Your task to perform on an android device: turn on sleep mode Image 0: 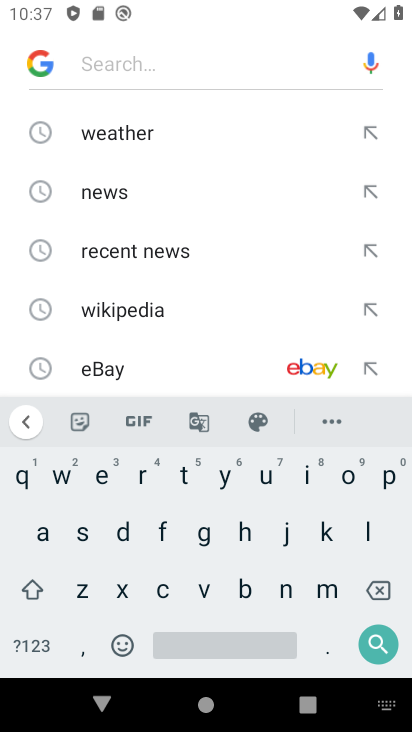
Step 0: press home button
Your task to perform on an android device: turn on sleep mode Image 1: 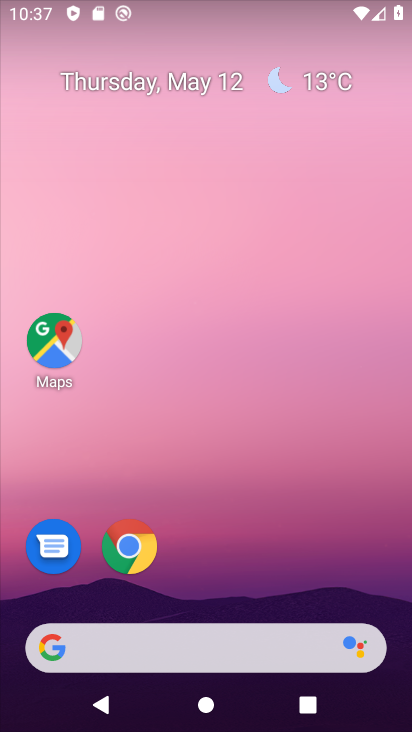
Step 1: drag from (265, 671) to (410, 240)
Your task to perform on an android device: turn on sleep mode Image 2: 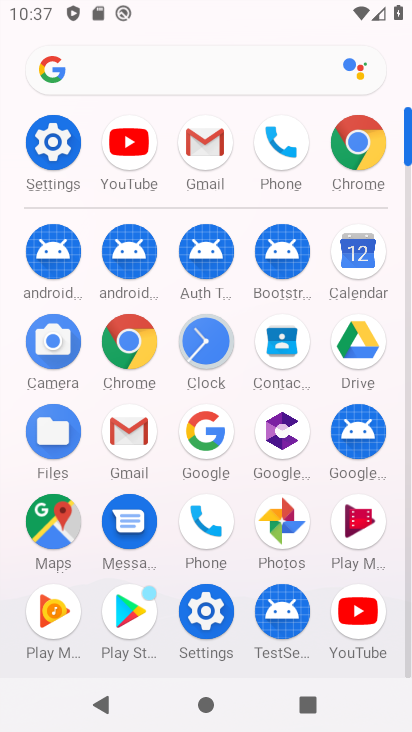
Step 2: click (39, 136)
Your task to perform on an android device: turn on sleep mode Image 3: 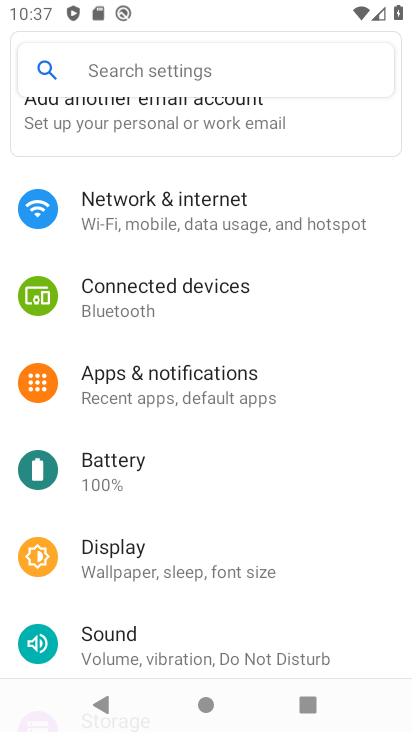
Step 3: click (99, 57)
Your task to perform on an android device: turn on sleep mode Image 4: 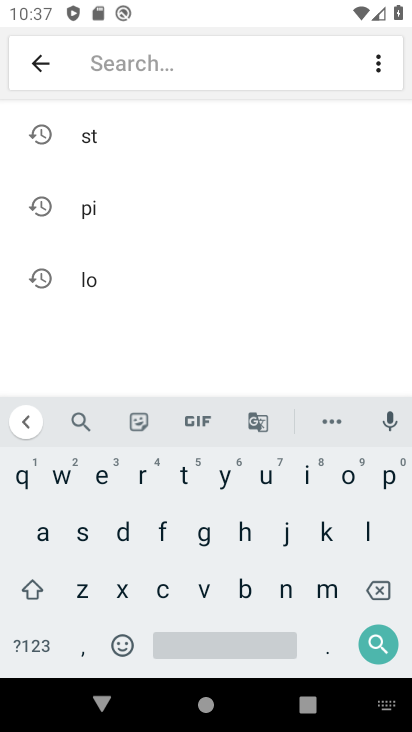
Step 4: click (83, 532)
Your task to perform on an android device: turn on sleep mode Image 5: 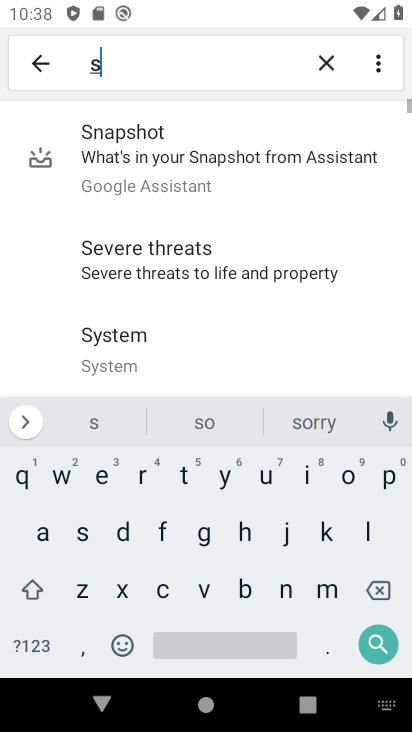
Step 5: click (367, 526)
Your task to perform on an android device: turn on sleep mode Image 6: 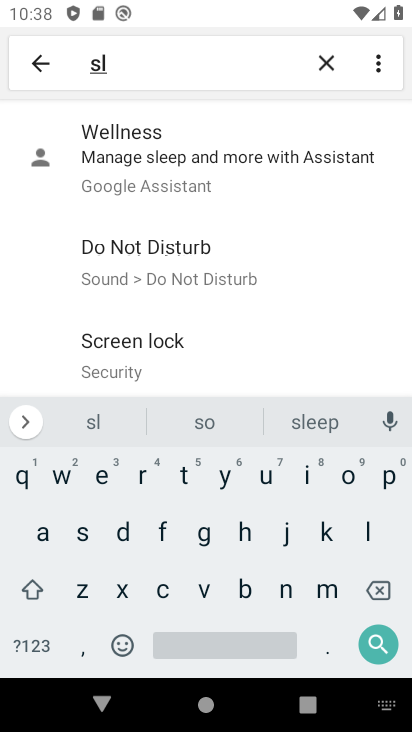
Step 6: click (180, 158)
Your task to perform on an android device: turn on sleep mode Image 7: 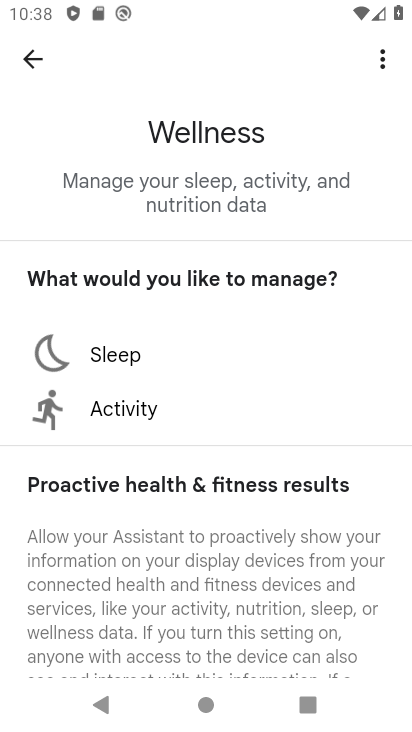
Step 7: click (100, 347)
Your task to perform on an android device: turn on sleep mode Image 8: 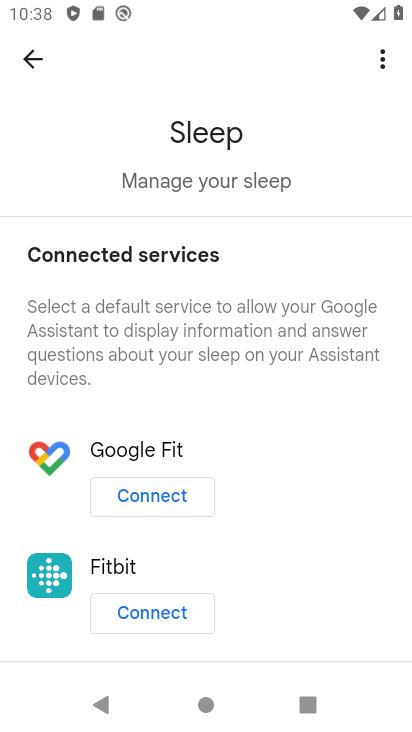
Step 8: task complete